Your task to perform on an android device: snooze an email in the gmail app Image 0: 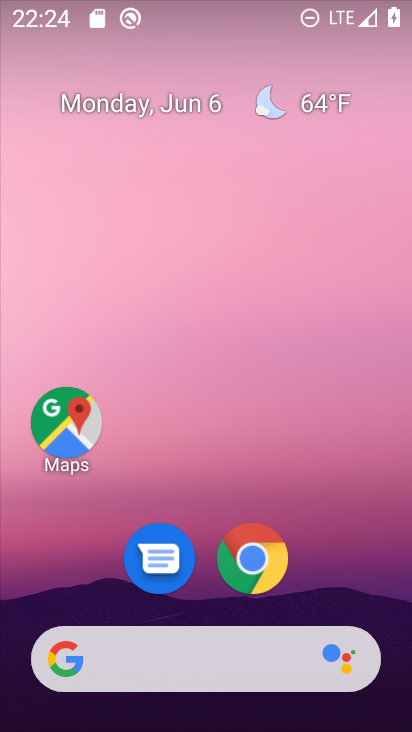
Step 0: drag from (216, 722) to (188, 124)
Your task to perform on an android device: snooze an email in the gmail app Image 1: 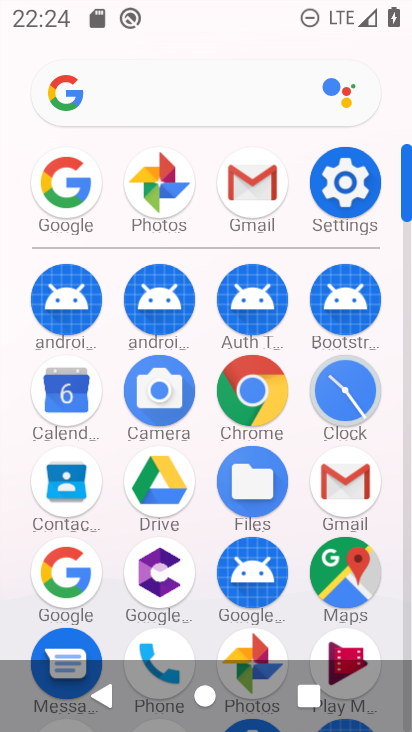
Step 1: click (340, 481)
Your task to perform on an android device: snooze an email in the gmail app Image 2: 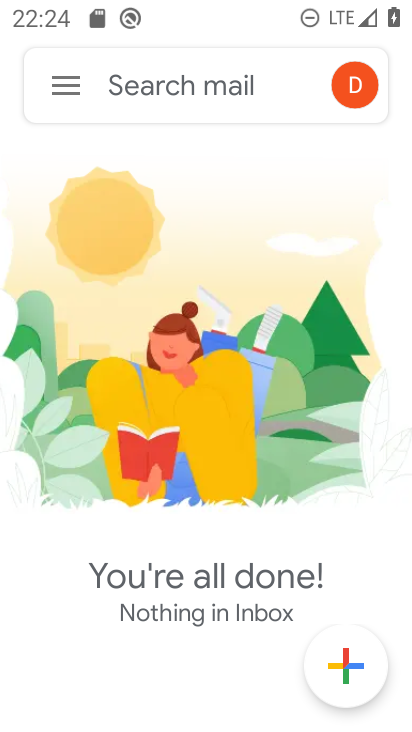
Step 2: click (61, 82)
Your task to perform on an android device: snooze an email in the gmail app Image 3: 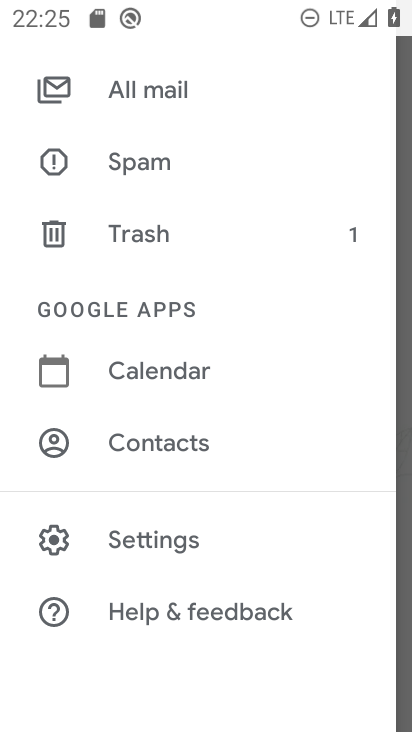
Step 3: drag from (208, 226) to (219, 476)
Your task to perform on an android device: snooze an email in the gmail app Image 4: 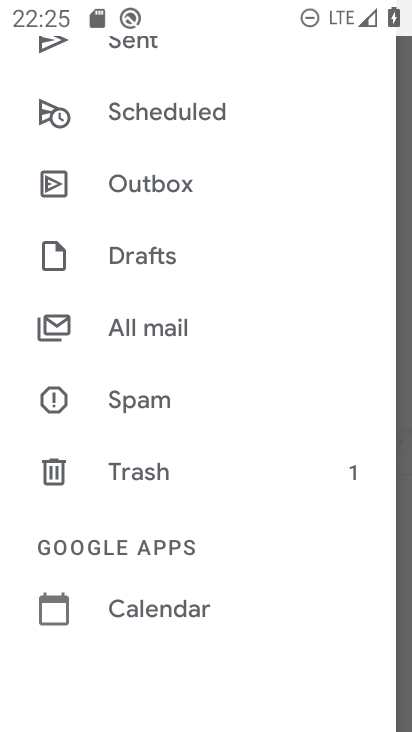
Step 4: drag from (199, 168) to (209, 415)
Your task to perform on an android device: snooze an email in the gmail app Image 5: 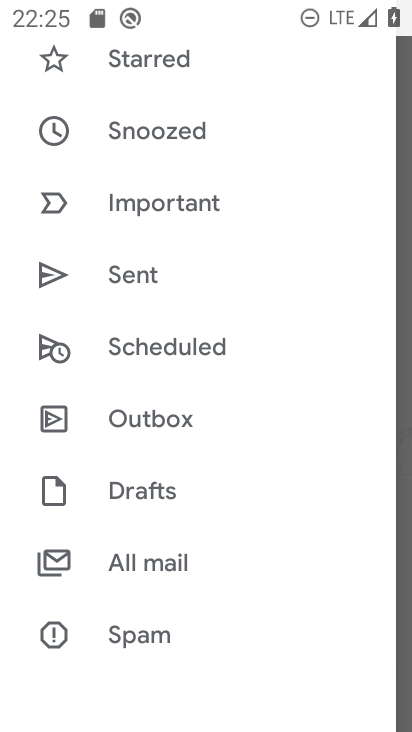
Step 5: drag from (216, 186) to (220, 485)
Your task to perform on an android device: snooze an email in the gmail app Image 6: 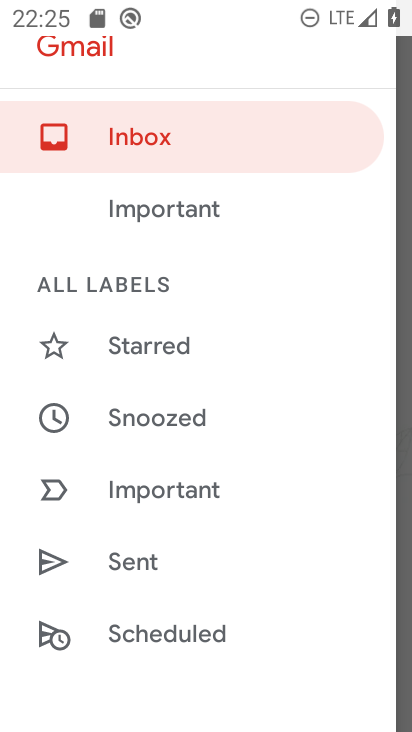
Step 6: click (158, 137)
Your task to perform on an android device: snooze an email in the gmail app Image 7: 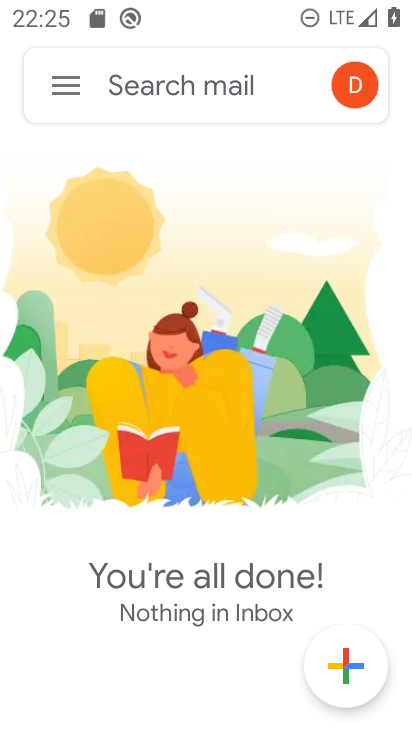
Step 7: task complete